Your task to perform on an android device: Clear all items from cart on costco.com. Search for "dell xps" on costco.com, select the first entry, add it to the cart, then select checkout. Image 0: 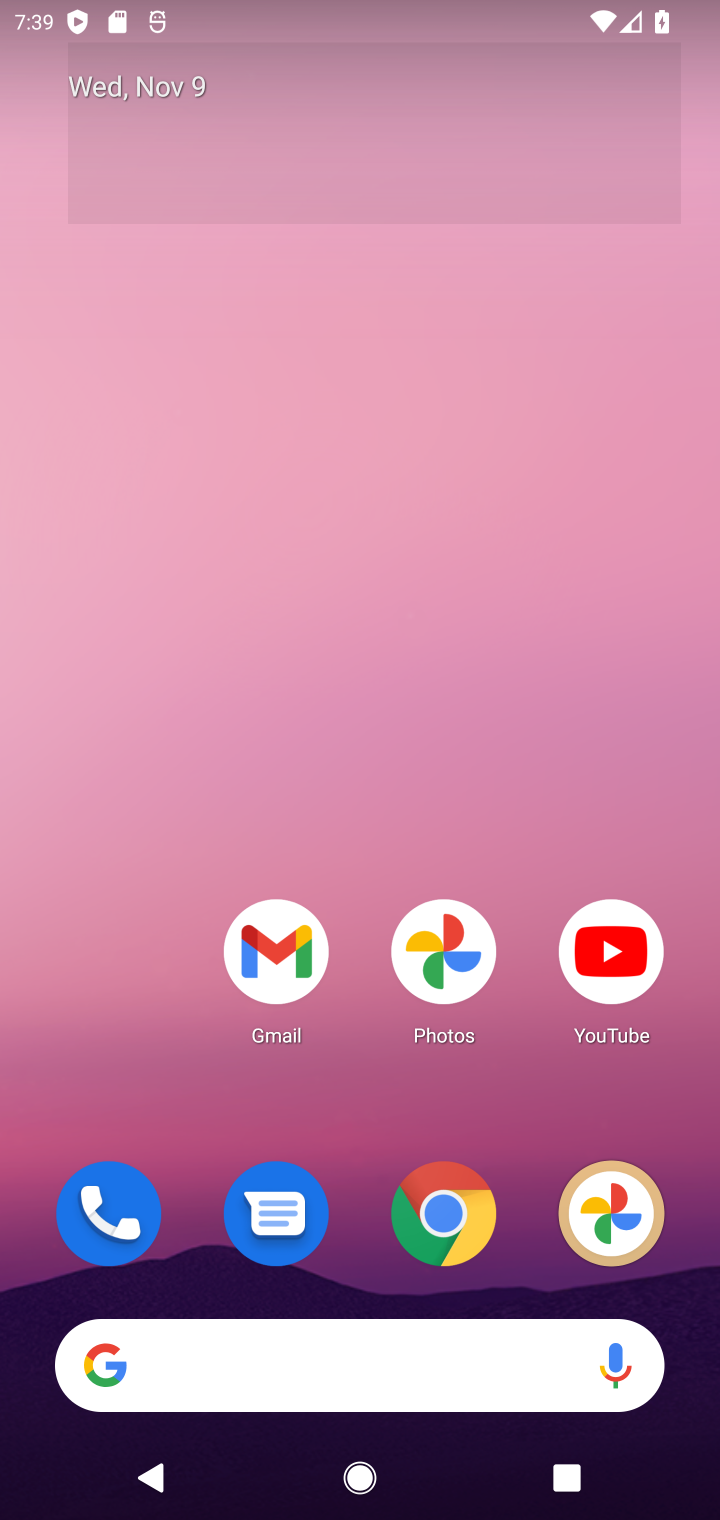
Step 0: click (452, 1237)
Your task to perform on an android device: Clear all items from cart on costco.com. Search for "dell xps" on costco.com, select the first entry, add it to the cart, then select checkout. Image 1: 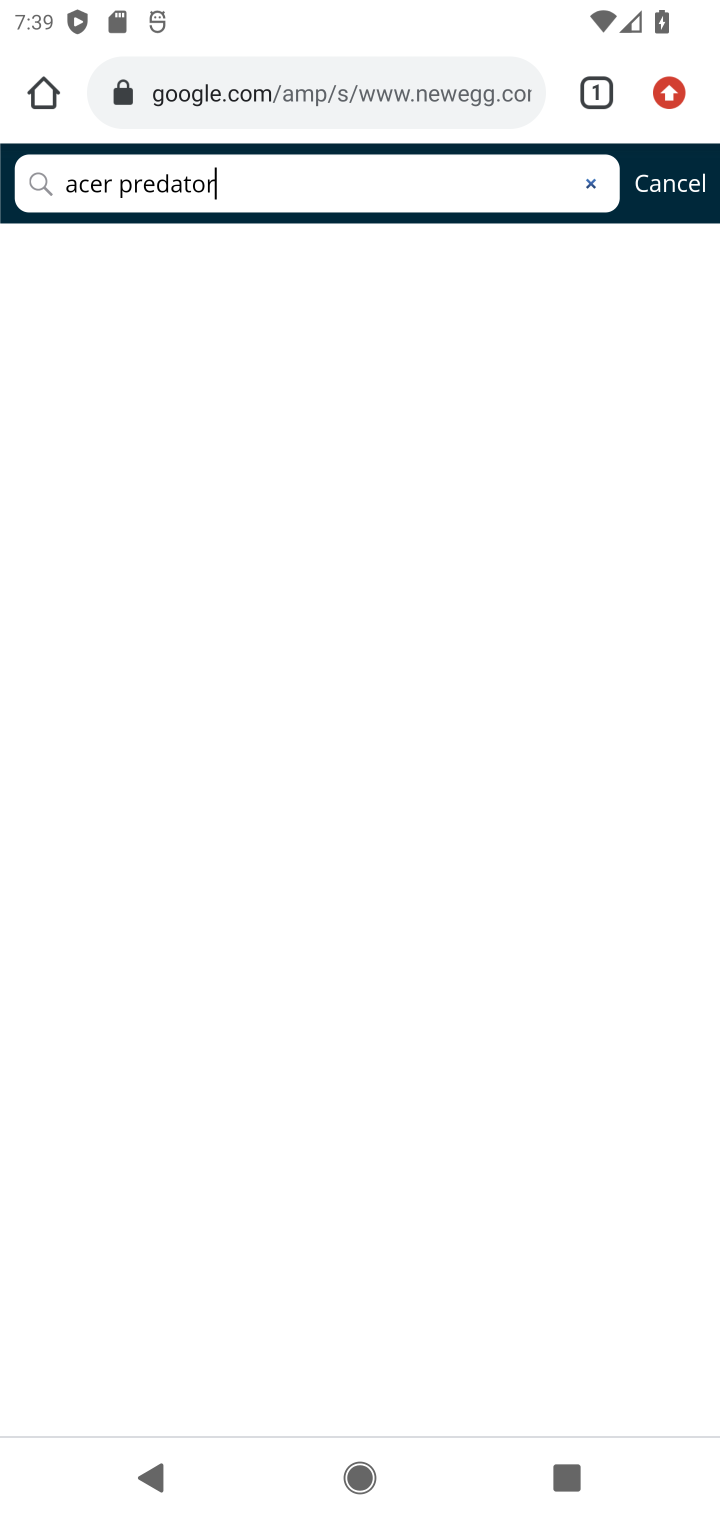
Step 1: click (275, 95)
Your task to perform on an android device: Clear all items from cart on costco.com. Search for "dell xps" on costco.com, select the first entry, add it to the cart, then select checkout. Image 2: 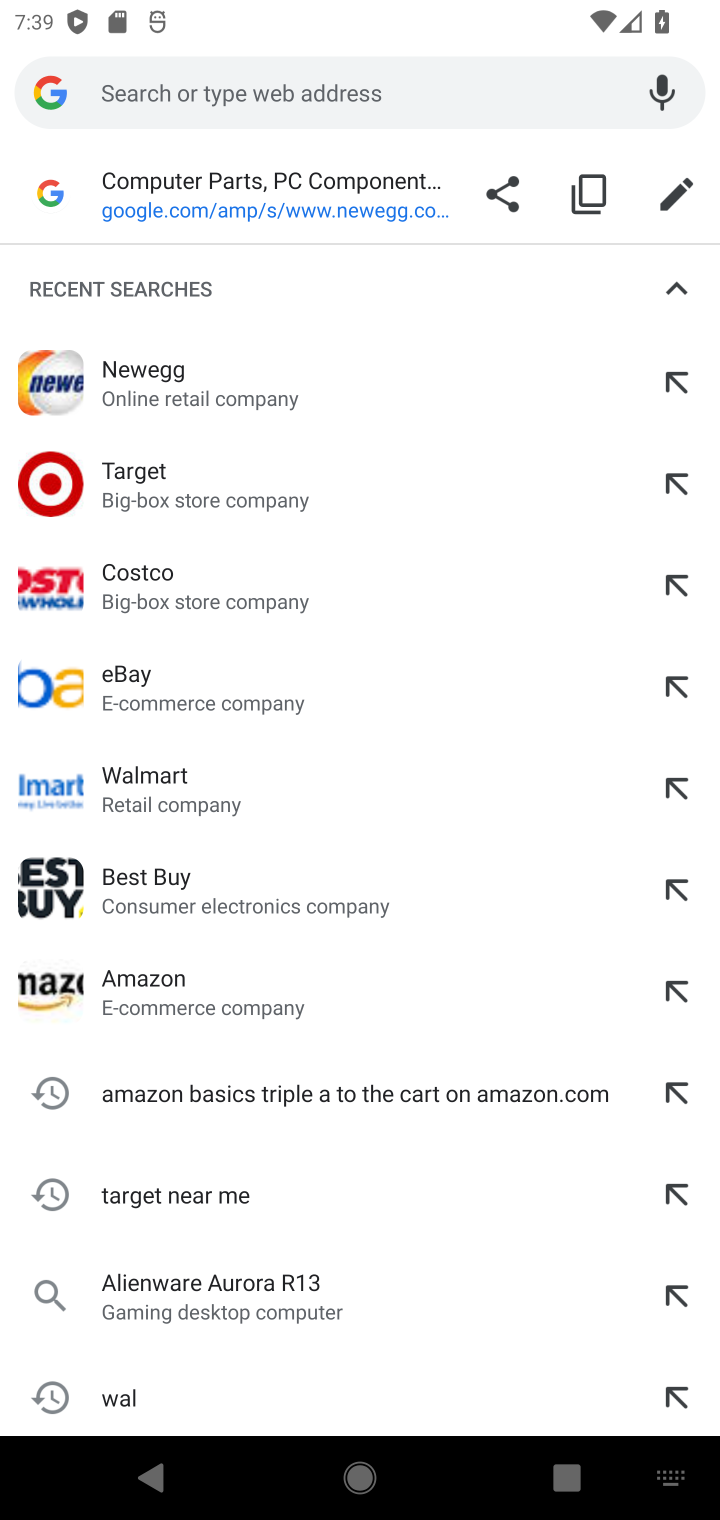
Step 2: click (130, 596)
Your task to perform on an android device: Clear all items from cart on costco.com. Search for "dell xps" on costco.com, select the first entry, add it to the cart, then select checkout. Image 3: 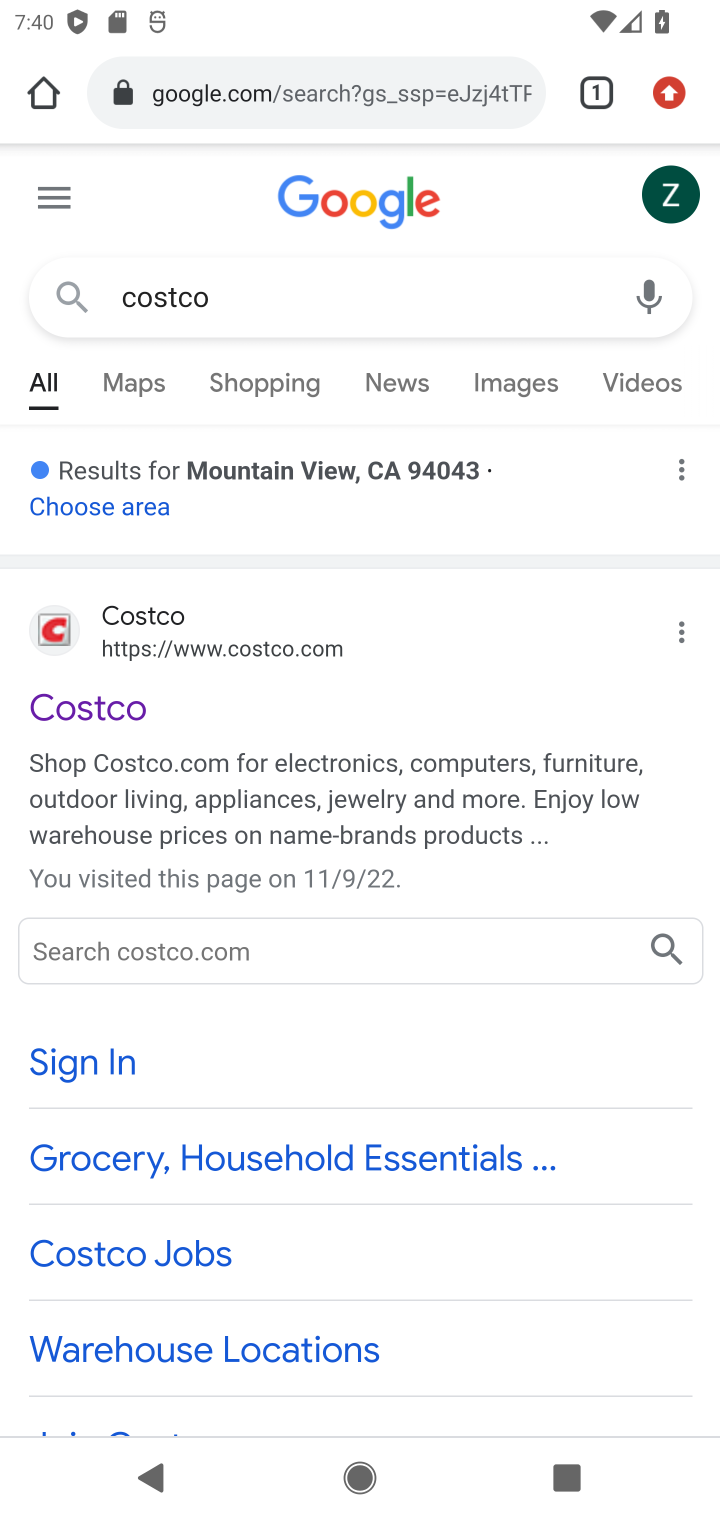
Step 3: click (101, 705)
Your task to perform on an android device: Clear all items from cart on costco.com. Search for "dell xps" on costco.com, select the first entry, add it to the cart, then select checkout. Image 4: 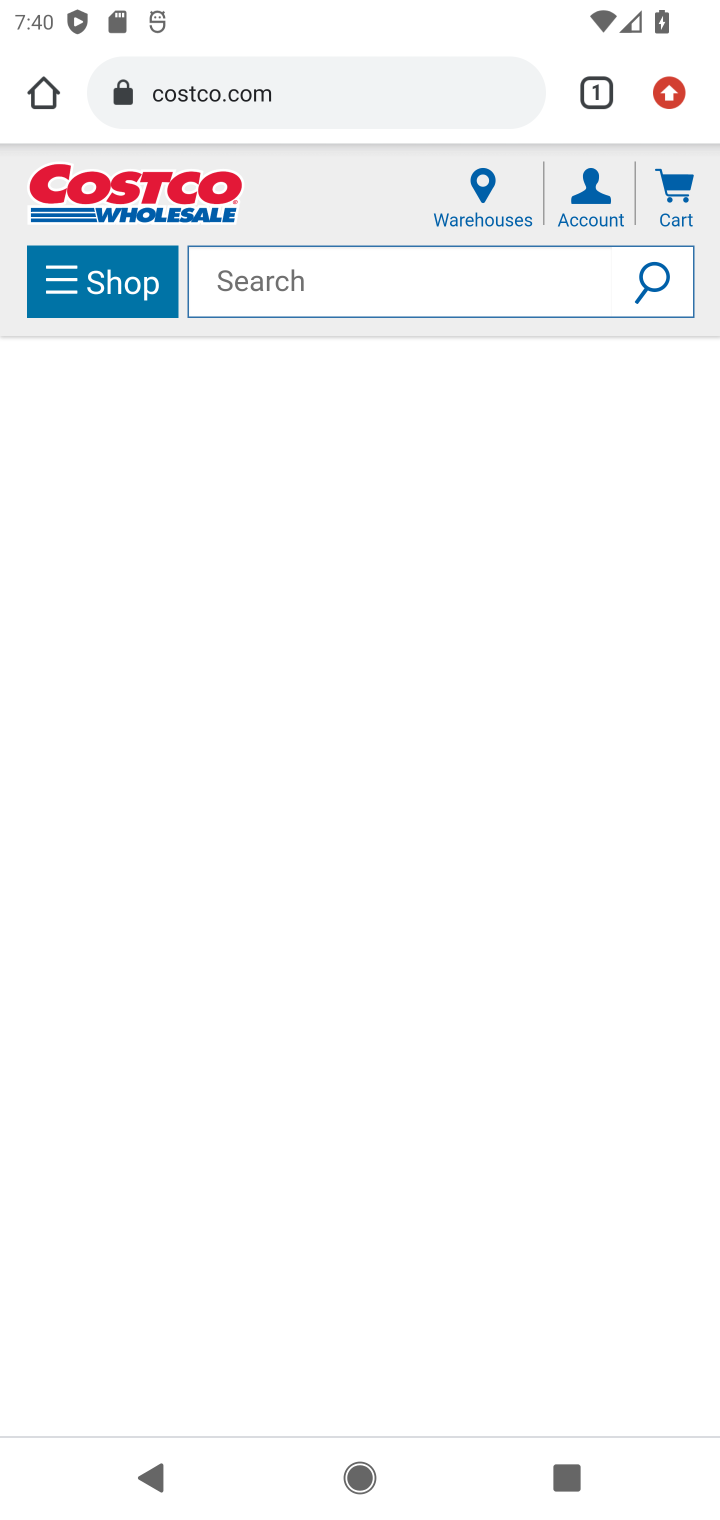
Step 4: click (282, 284)
Your task to perform on an android device: Clear all items from cart on costco.com. Search for "dell xps" on costco.com, select the first entry, add it to the cart, then select checkout. Image 5: 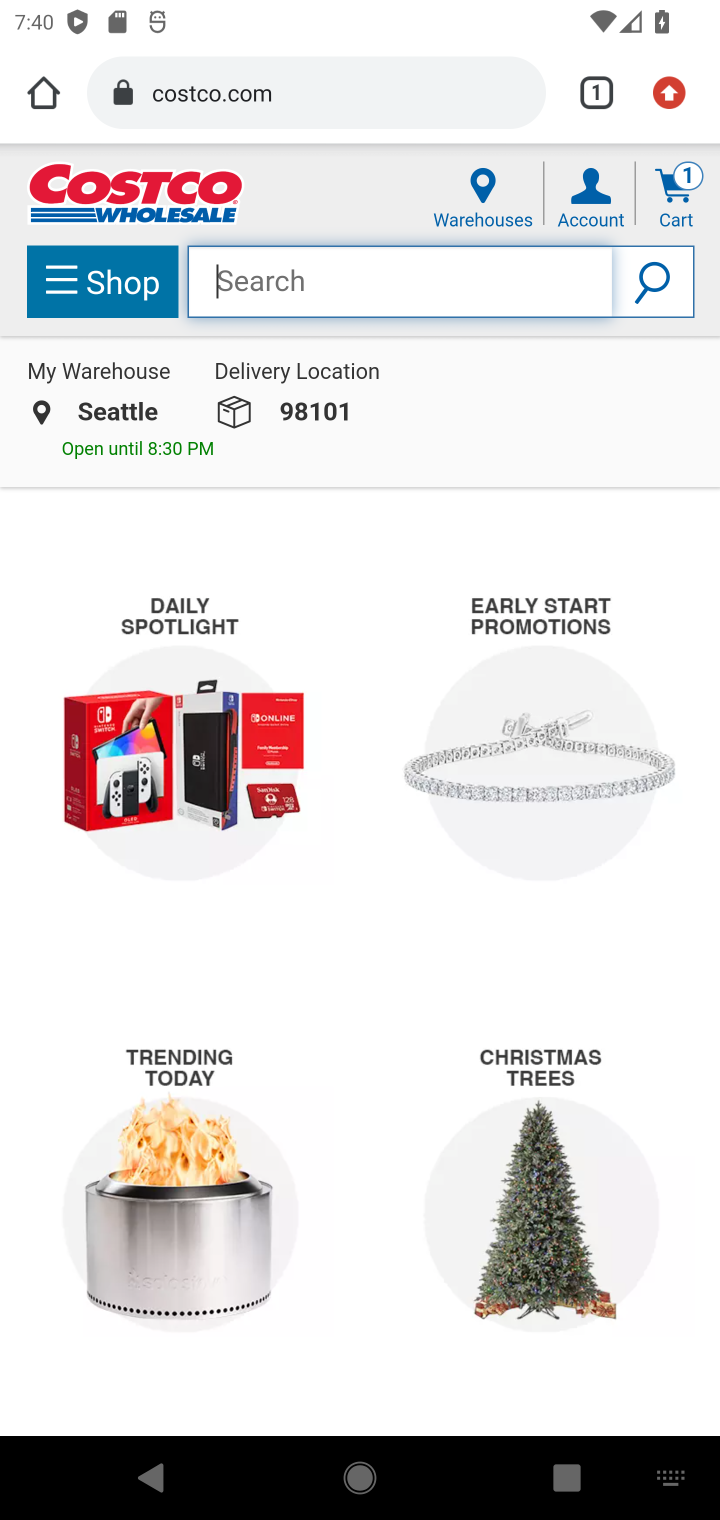
Step 5: type "dell xps"
Your task to perform on an android device: Clear all items from cart on costco.com. Search for "dell xps" on costco.com, select the first entry, add it to the cart, then select checkout. Image 6: 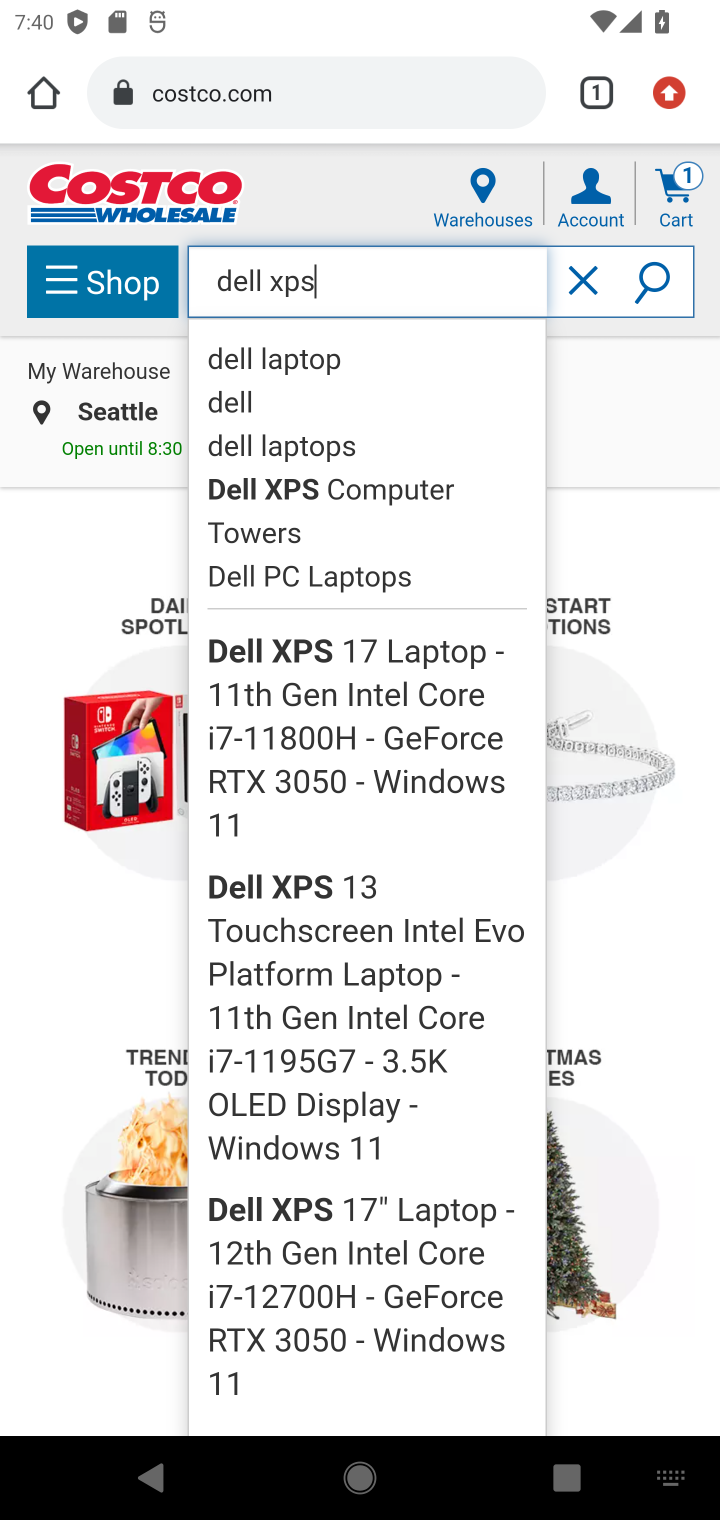
Step 6: click (317, 487)
Your task to perform on an android device: Clear all items from cart on costco.com. Search for "dell xps" on costco.com, select the first entry, add it to the cart, then select checkout. Image 7: 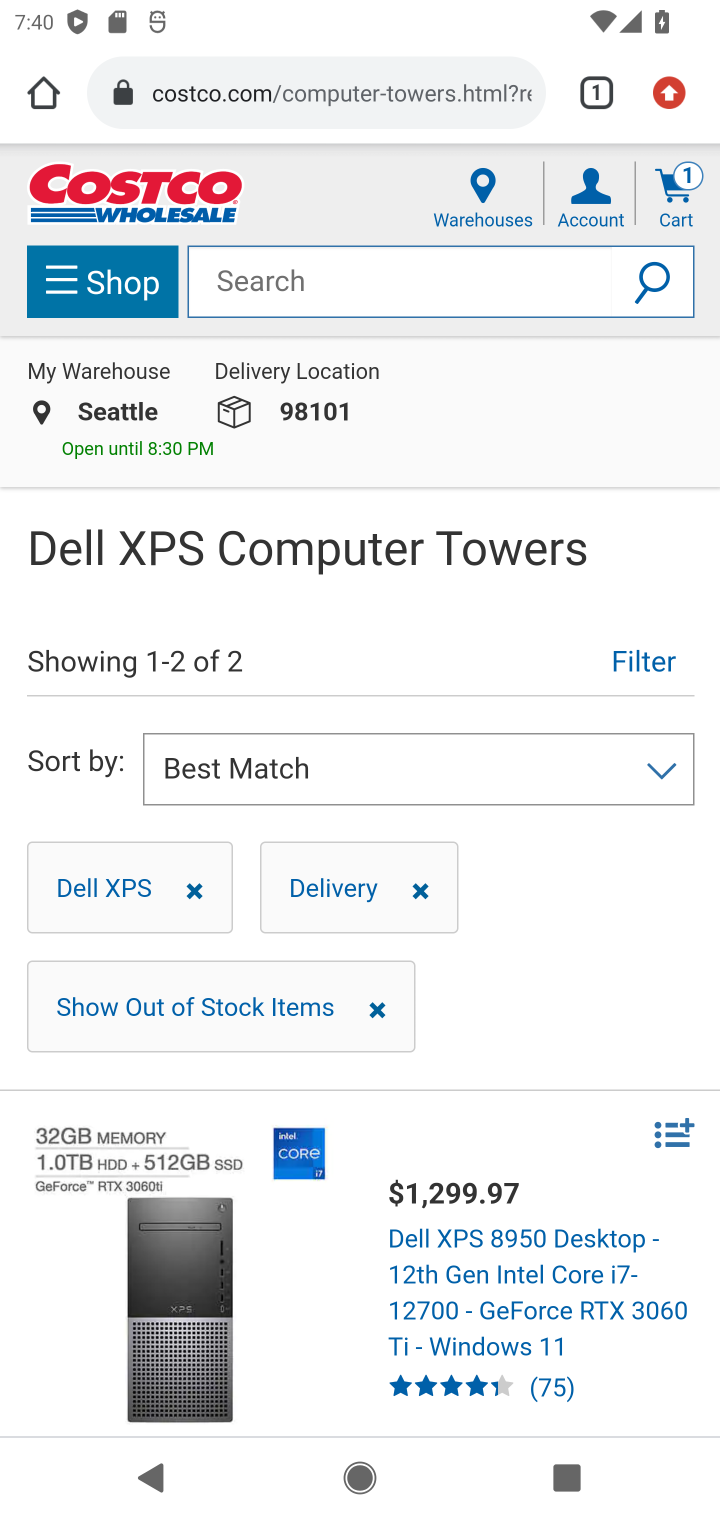
Step 7: click (424, 1290)
Your task to perform on an android device: Clear all items from cart on costco.com. Search for "dell xps" on costco.com, select the first entry, add it to the cart, then select checkout. Image 8: 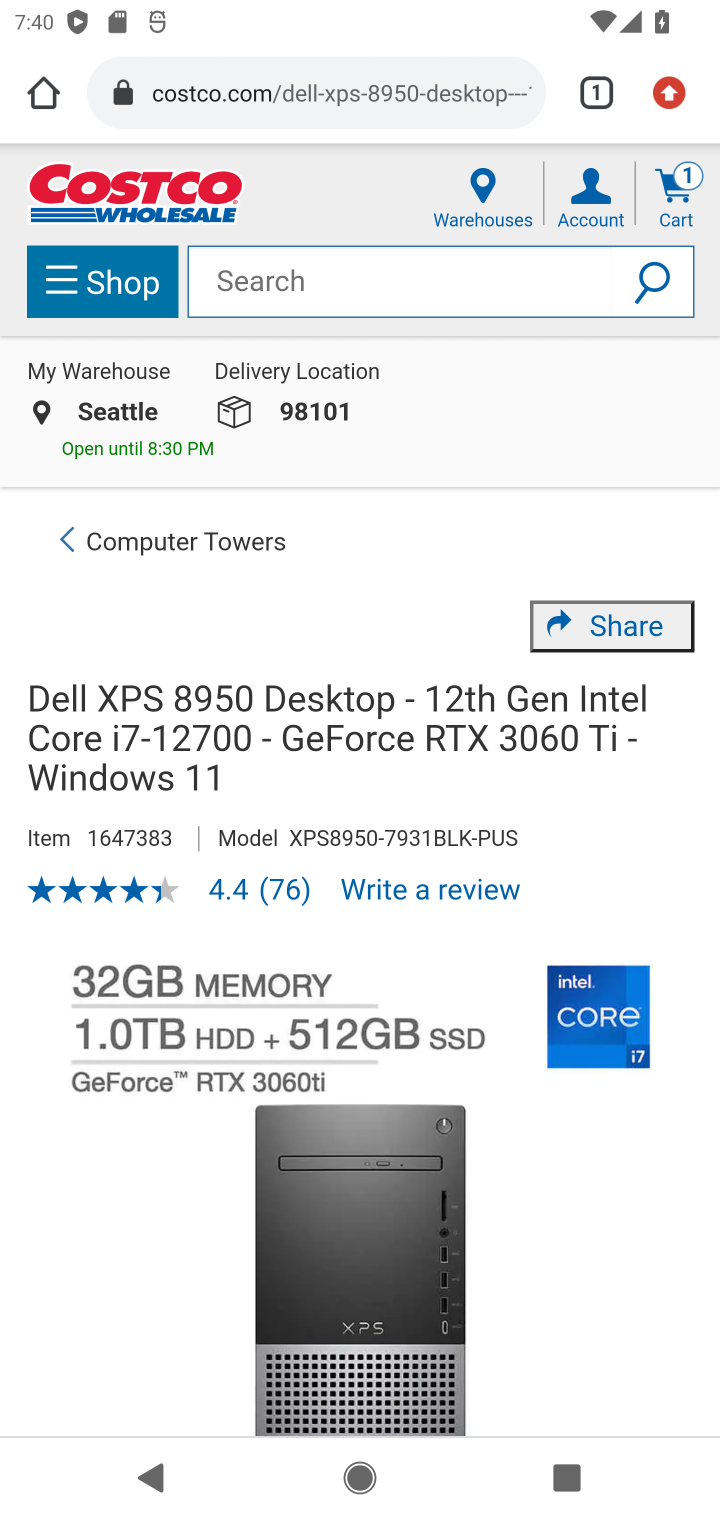
Step 8: drag from (453, 1091) to (433, 637)
Your task to perform on an android device: Clear all items from cart on costco.com. Search for "dell xps" on costco.com, select the first entry, add it to the cart, then select checkout. Image 9: 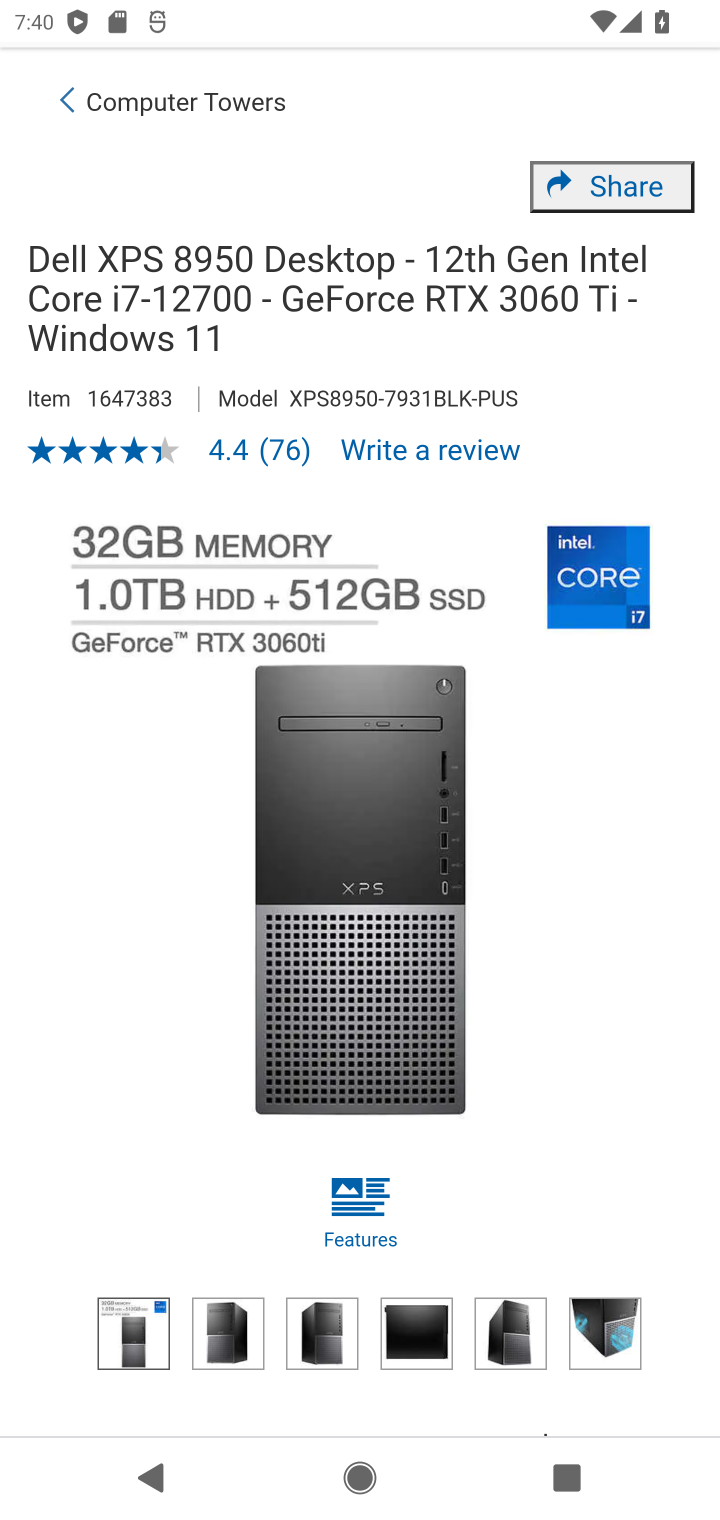
Step 9: drag from (334, 1044) to (375, 491)
Your task to perform on an android device: Clear all items from cart on costco.com. Search for "dell xps" on costco.com, select the first entry, add it to the cart, then select checkout. Image 10: 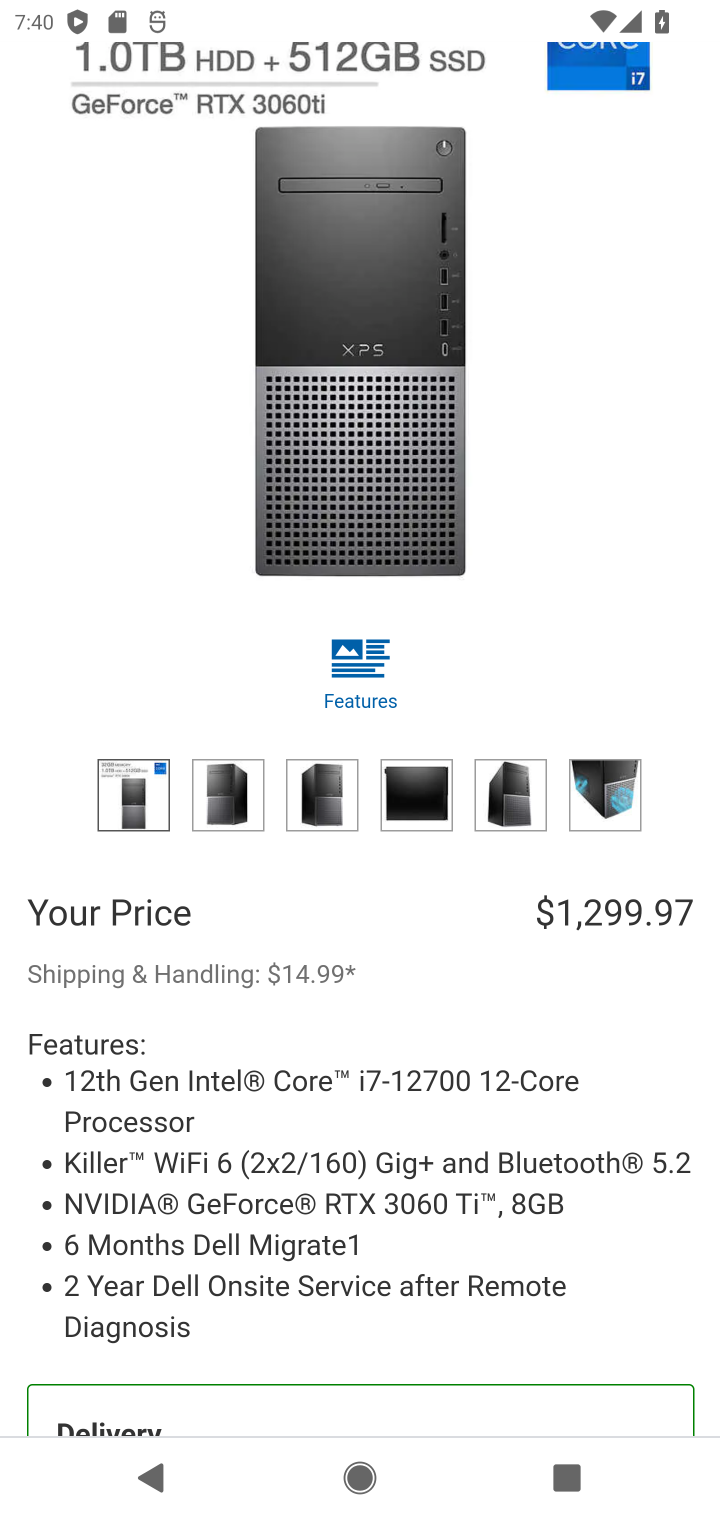
Step 10: drag from (501, 845) to (503, 477)
Your task to perform on an android device: Clear all items from cart on costco.com. Search for "dell xps" on costco.com, select the first entry, add it to the cart, then select checkout. Image 11: 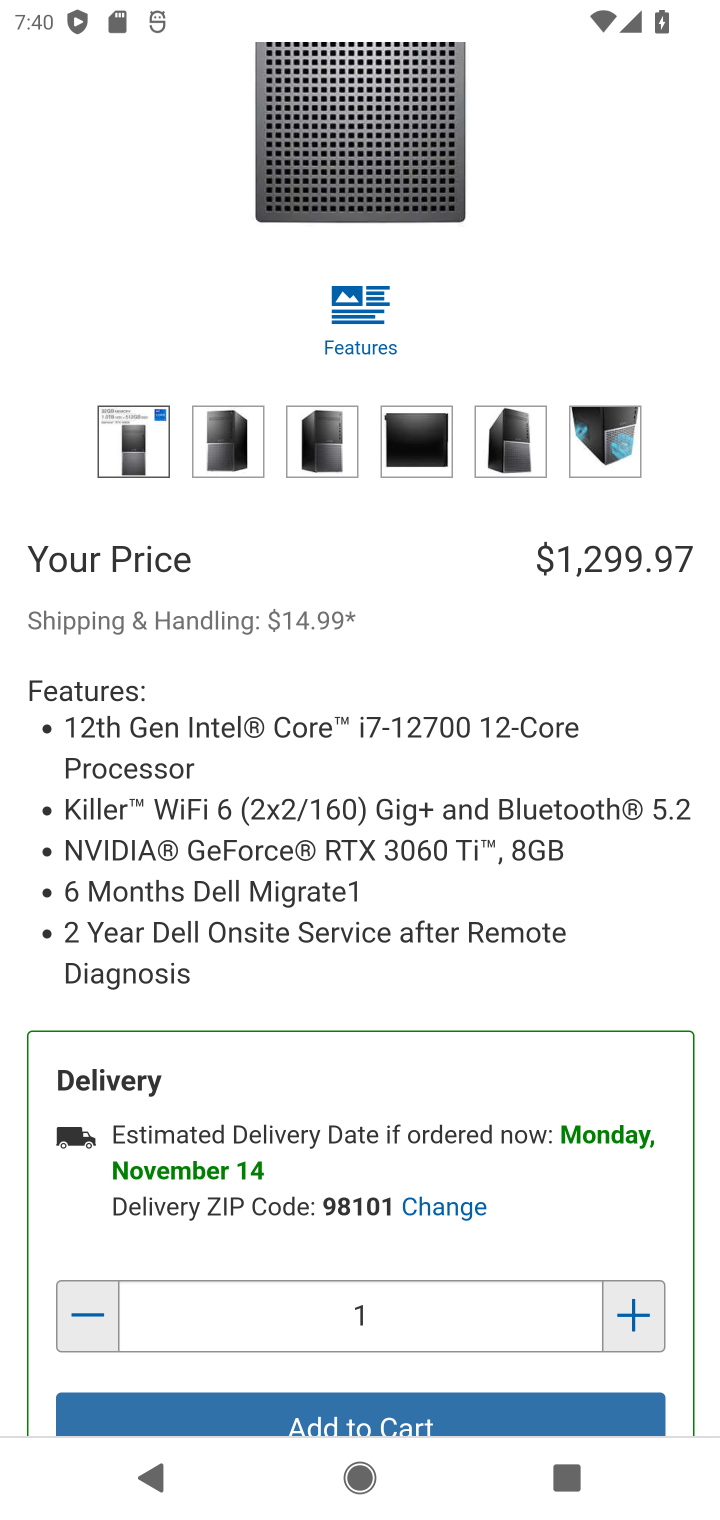
Step 11: click (402, 1420)
Your task to perform on an android device: Clear all items from cart on costco.com. Search for "dell xps" on costco.com, select the first entry, add it to the cart, then select checkout. Image 12: 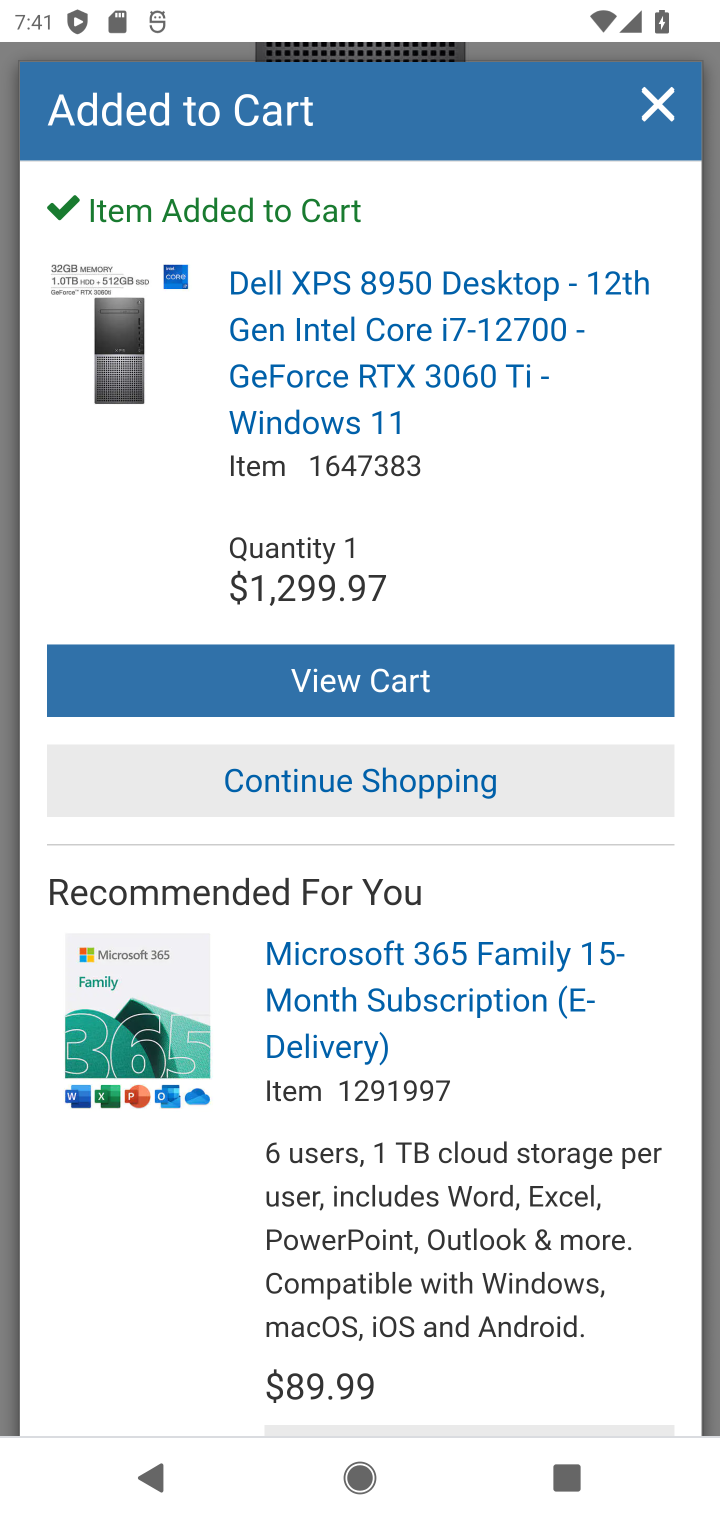
Step 12: click (359, 686)
Your task to perform on an android device: Clear all items from cart on costco.com. Search for "dell xps" on costco.com, select the first entry, add it to the cart, then select checkout. Image 13: 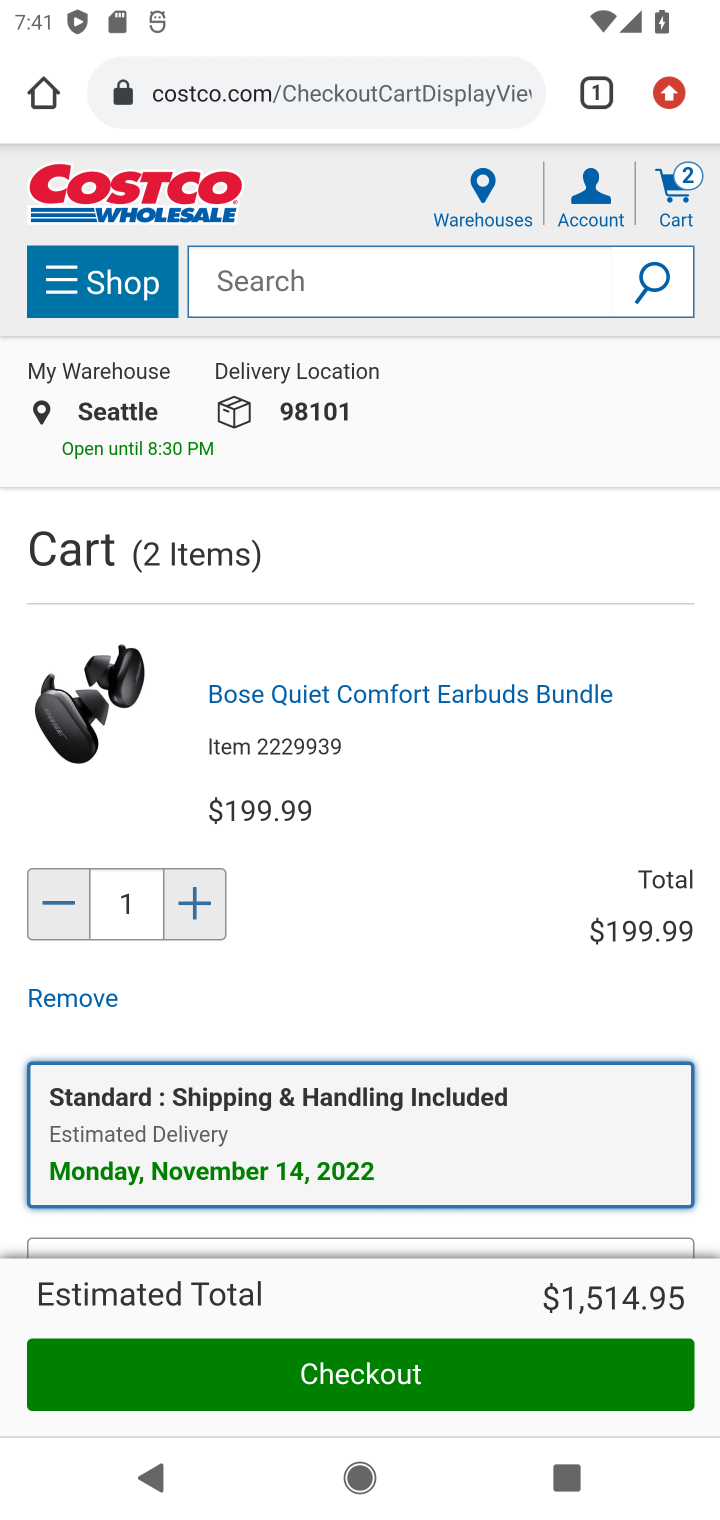
Step 13: click (385, 1378)
Your task to perform on an android device: Clear all items from cart on costco.com. Search for "dell xps" on costco.com, select the first entry, add it to the cart, then select checkout. Image 14: 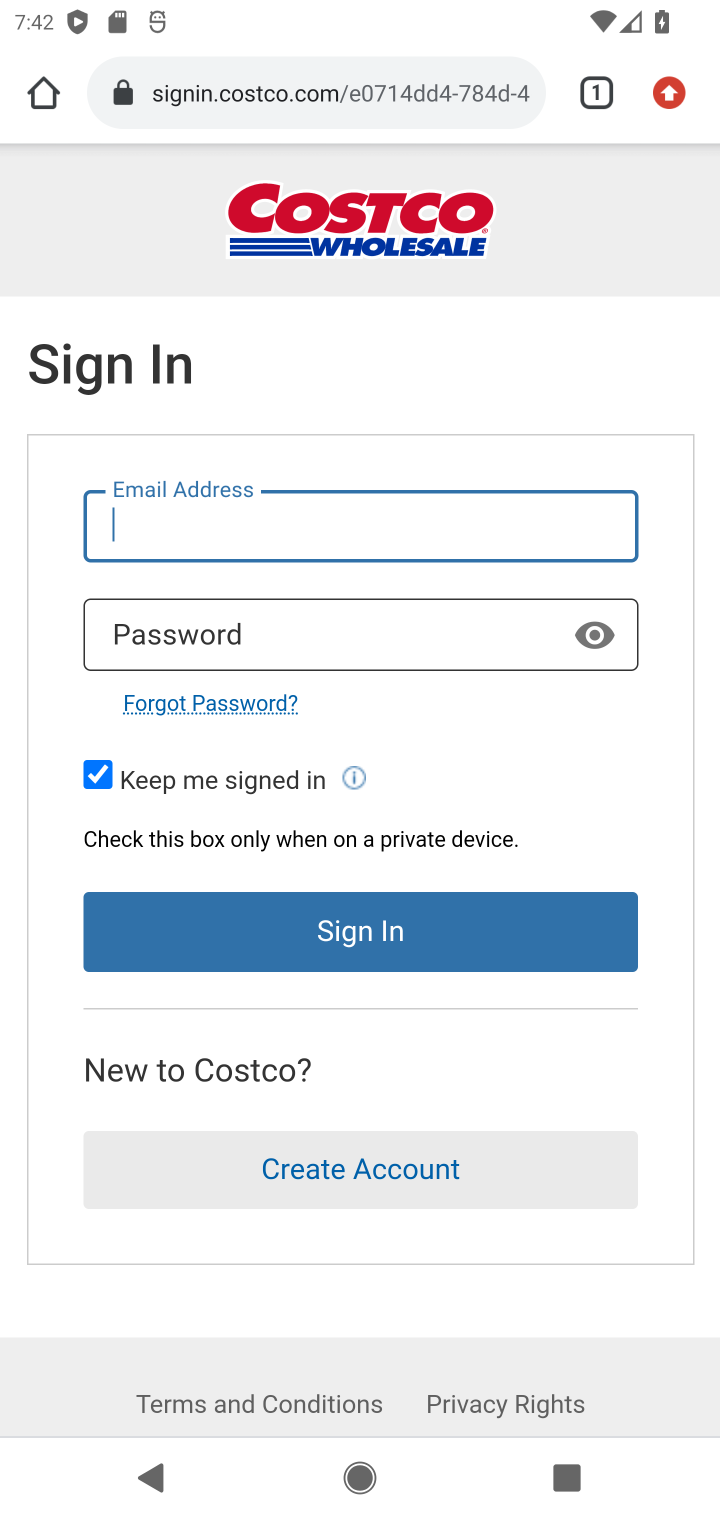
Step 14: task complete